Your task to perform on an android device: turn off location history Image 0: 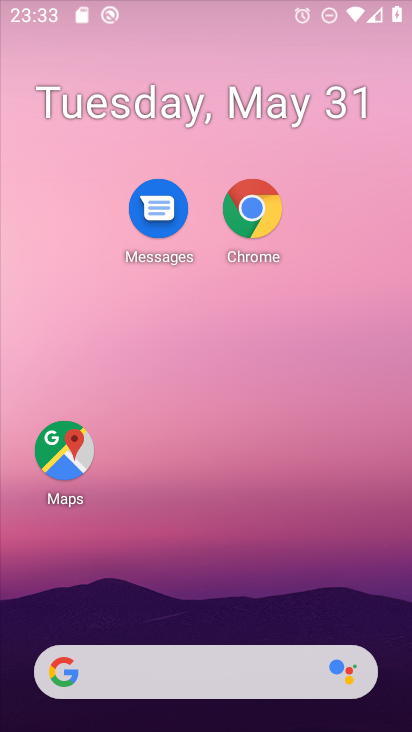
Step 0: press home button
Your task to perform on an android device: turn off location history Image 1: 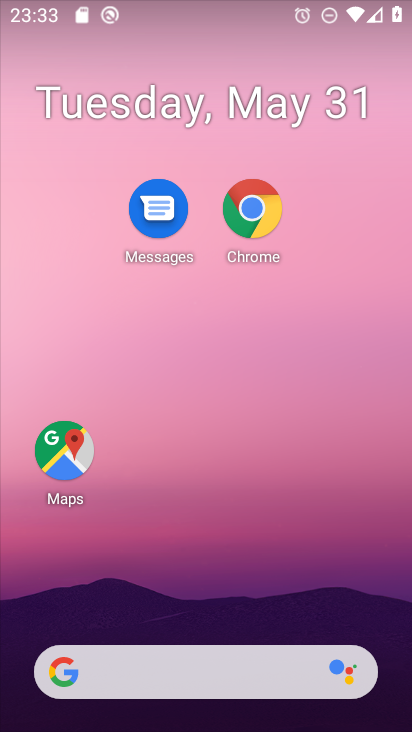
Step 1: drag from (223, 624) to (221, 121)
Your task to perform on an android device: turn off location history Image 2: 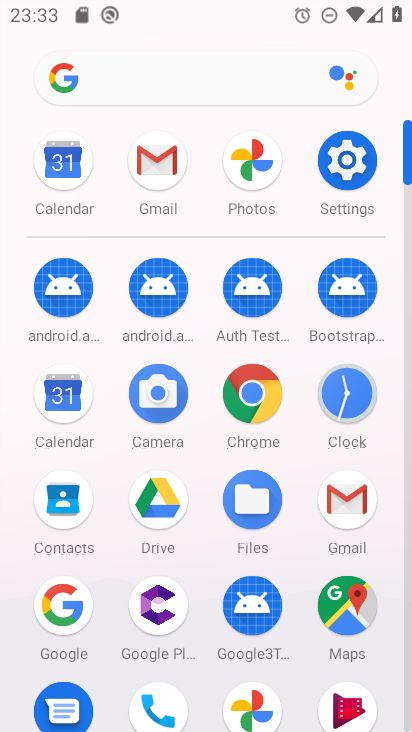
Step 2: click (347, 600)
Your task to perform on an android device: turn off location history Image 3: 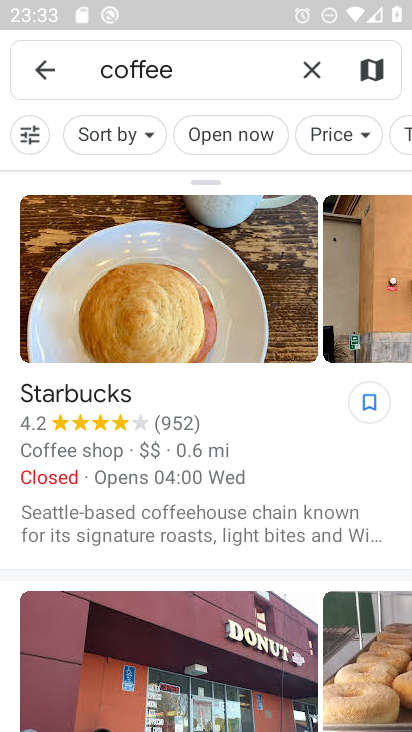
Step 3: click (43, 70)
Your task to perform on an android device: turn off location history Image 4: 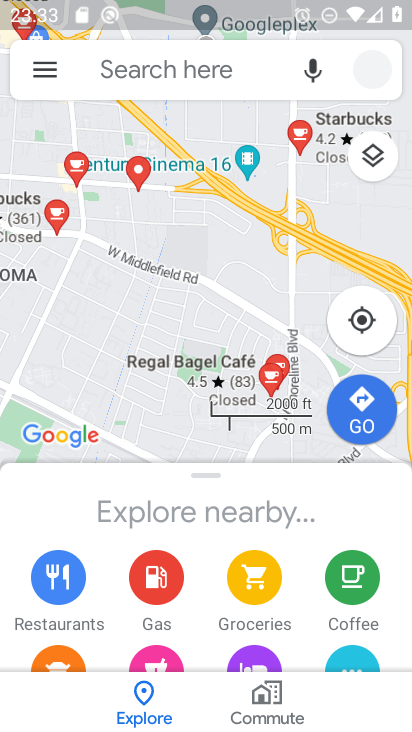
Step 4: click (43, 70)
Your task to perform on an android device: turn off location history Image 5: 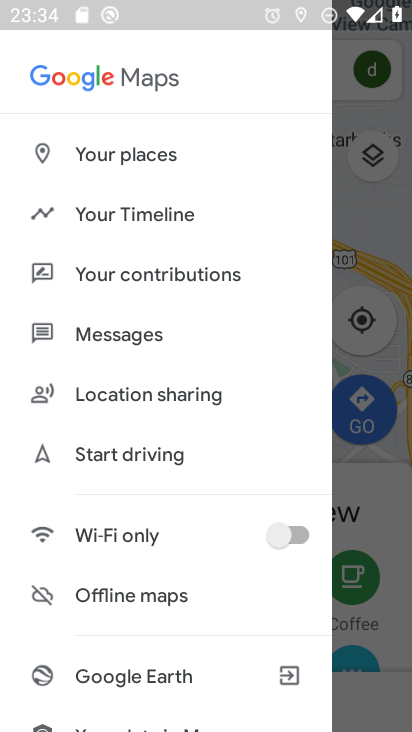
Step 5: drag from (145, 670) to (174, 103)
Your task to perform on an android device: turn off location history Image 6: 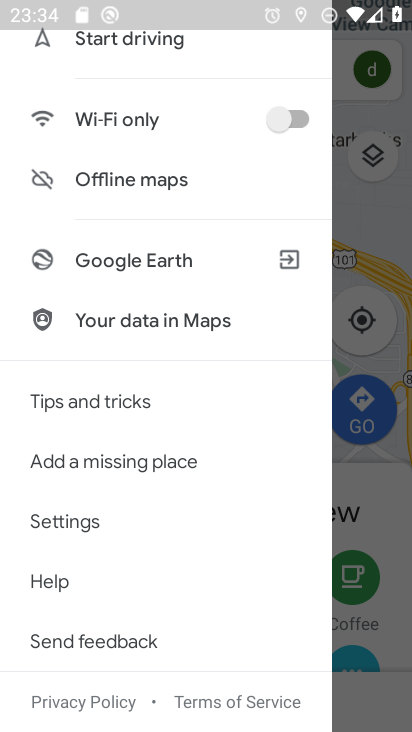
Step 6: click (110, 513)
Your task to perform on an android device: turn off location history Image 7: 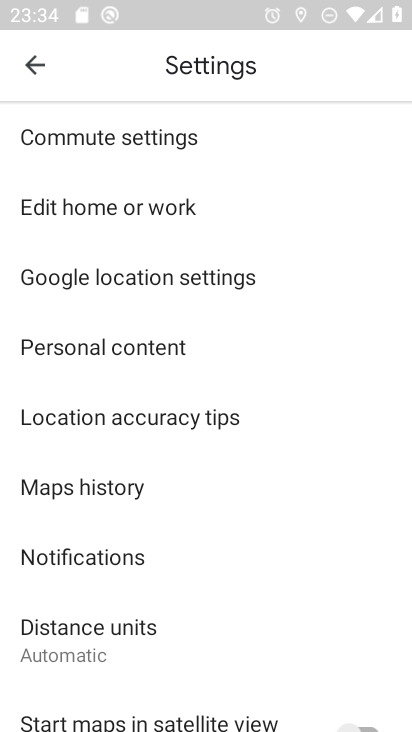
Step 7: click (264, 273)
Your task to perform on an android device: turn off location history Image 8: 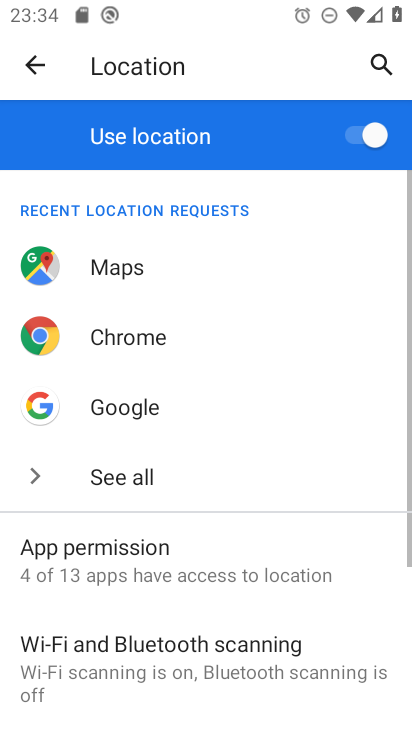
Step 8: drag from (222, 711) to (238, 200)
Your task to perform on an android device: turn off location history Image 9: 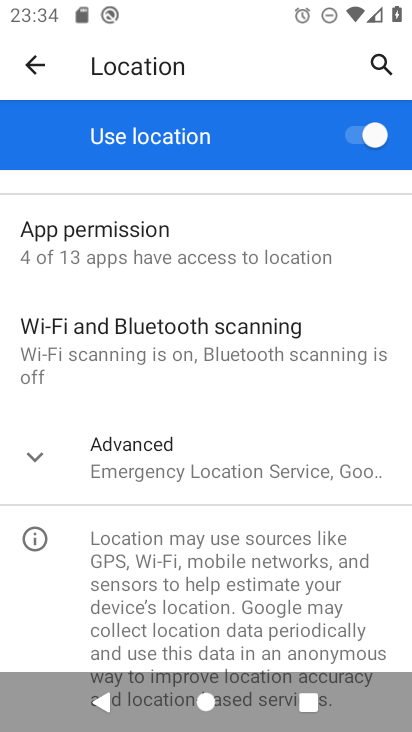
Step 9: click (31, 447)
Your task to perform on an android device: turn off location history Image 10: 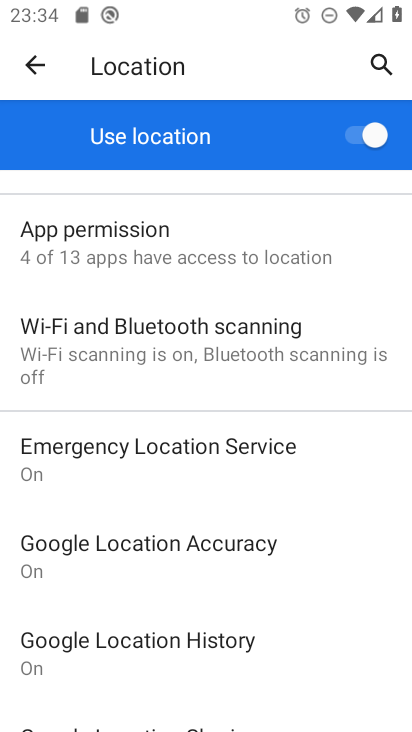
Step 10: click (87, 653)
Your task to perform on an android device: turn off location history Image 11: 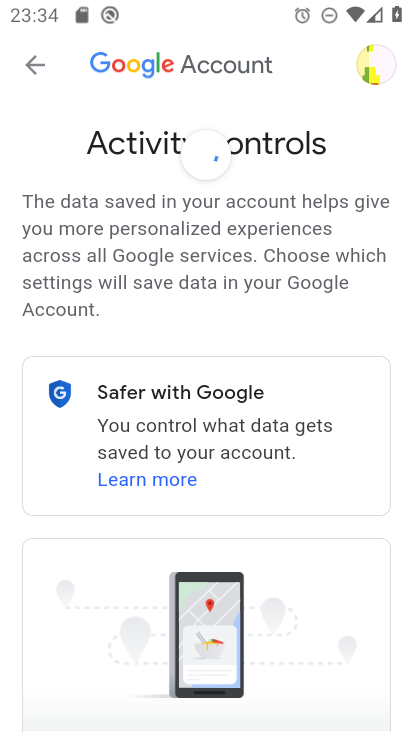
Step 11: drag from (274, 653) to (302, 123)
Your task to perform on an android device: turn off location history Image 12: 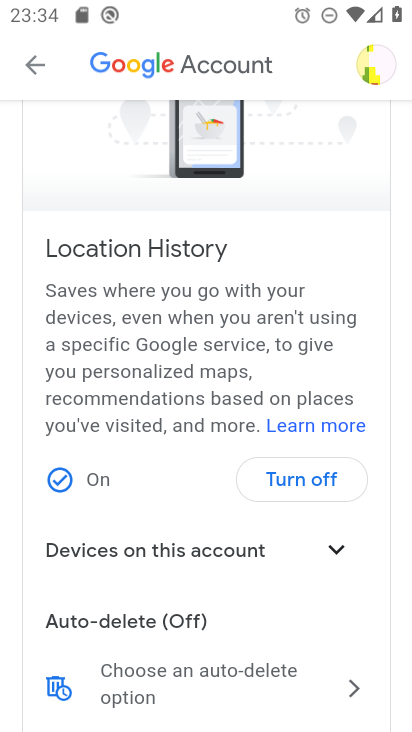
Step 12: click (306, 482)
Your task to perform on an android device: turn off location history Image 13: 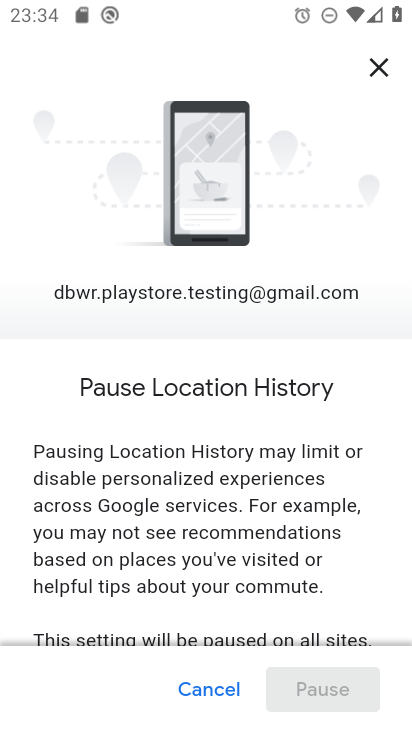
Step 13: drag from (233, 608) to (243, 207)
Your task to perform on an android device: turn off location history Image 14: 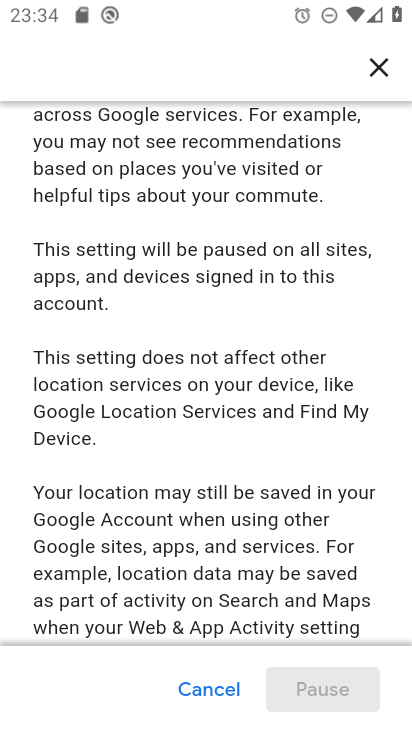
Step 14: drag from (251, 617) to (274, 164)
Your task to perform on an android device: turn off location history Image 15: 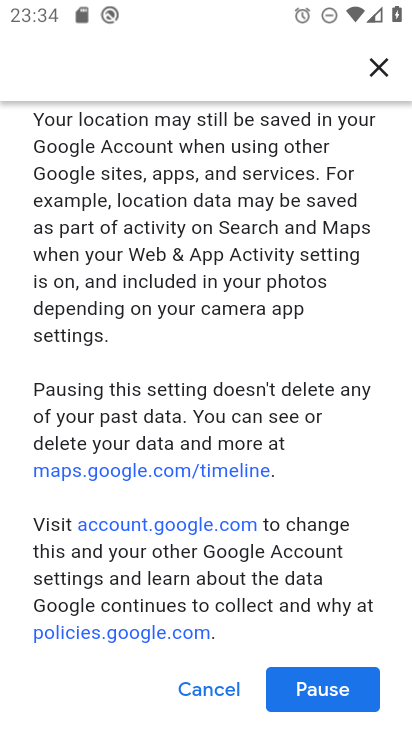
Step 15: click (322, 684)
Your task to perform on an android device: turn off location history Image 16: 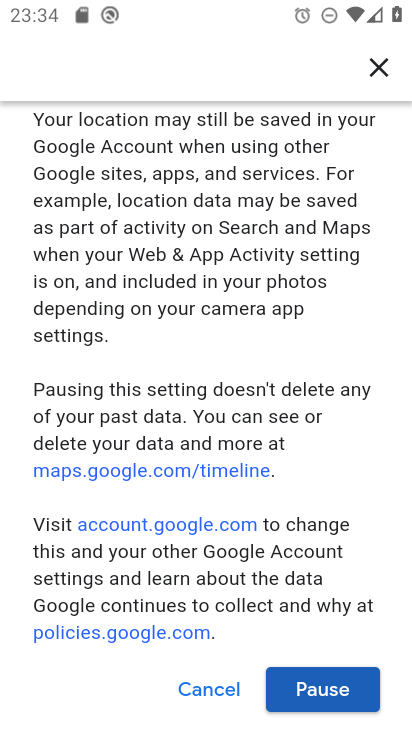
Step 16: click (321, 683)
Your task to perform on an android device: turn off location history Image 17: 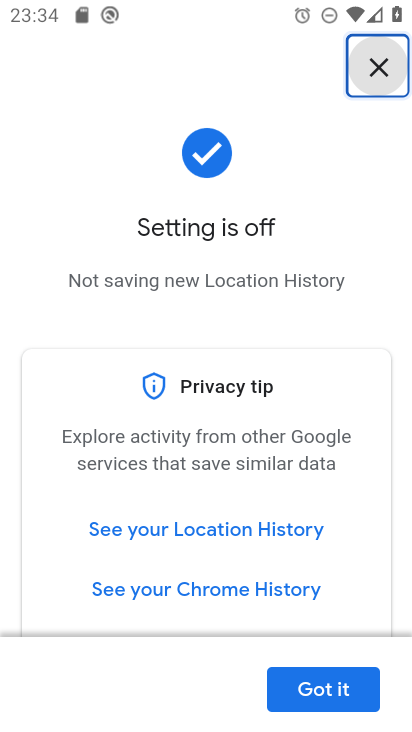
Step 17: click (333, 688)
Your task to perform on an android device: turn off location history Image 18: 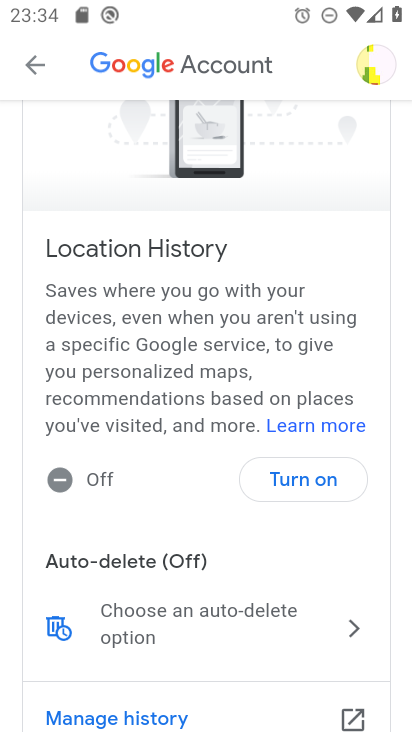
Step 18: task complete